Your task to perform on an android device: turn notification dots off Image 0: 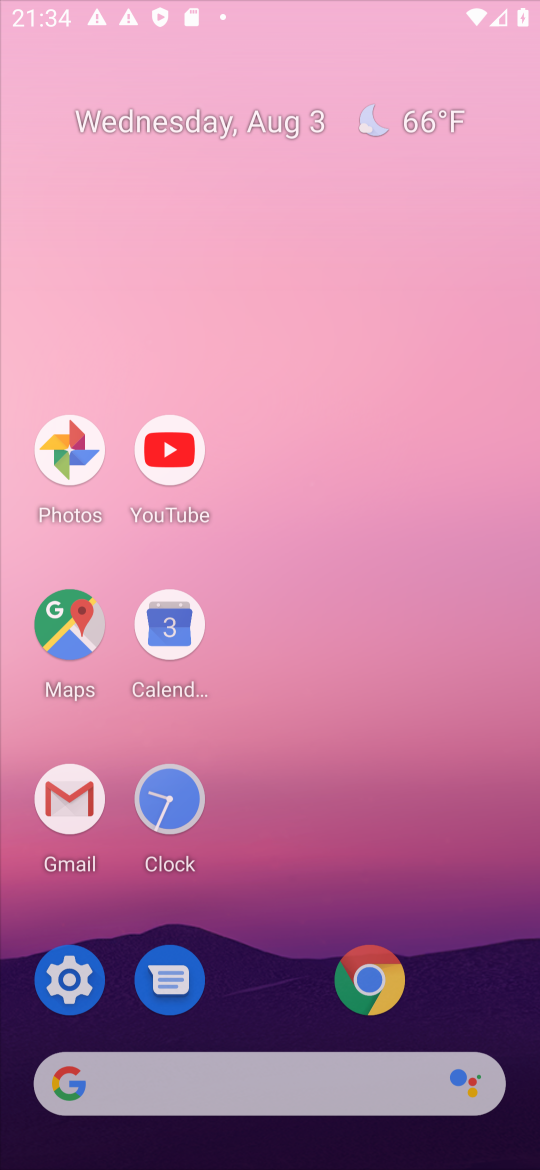
Step 0: press home button
Your task to perform on an android device: turn notification dots off Image 1: 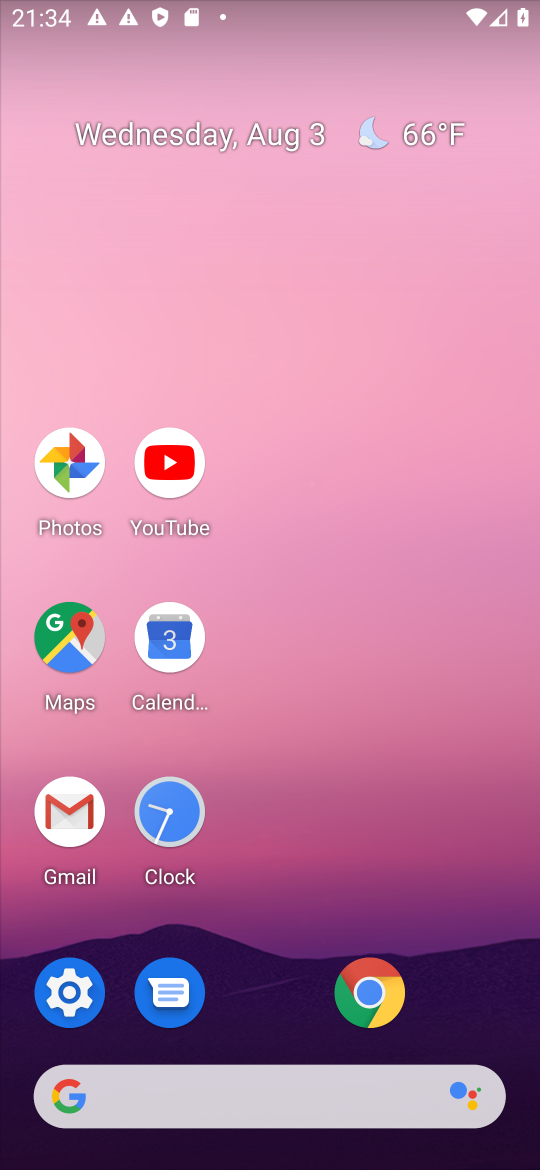
Step 1: click (65, 994)
Your task to perform on an android device: turn notification dots off Image 2: 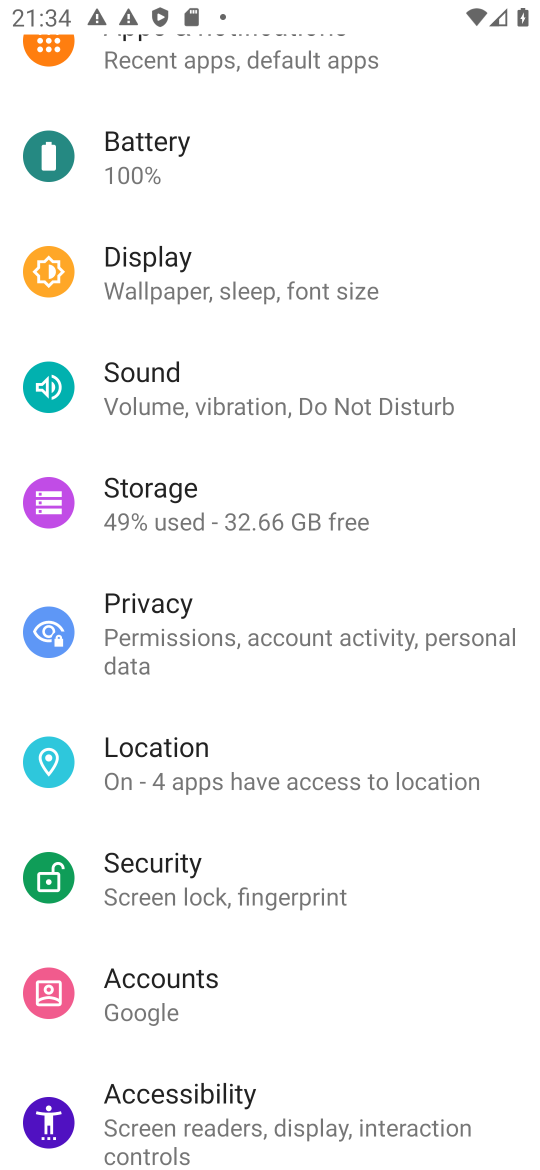
Step 2: drag from (384, 197) to (384, 957)
Your task to perform on an android device: turn notification dots off Image 3: 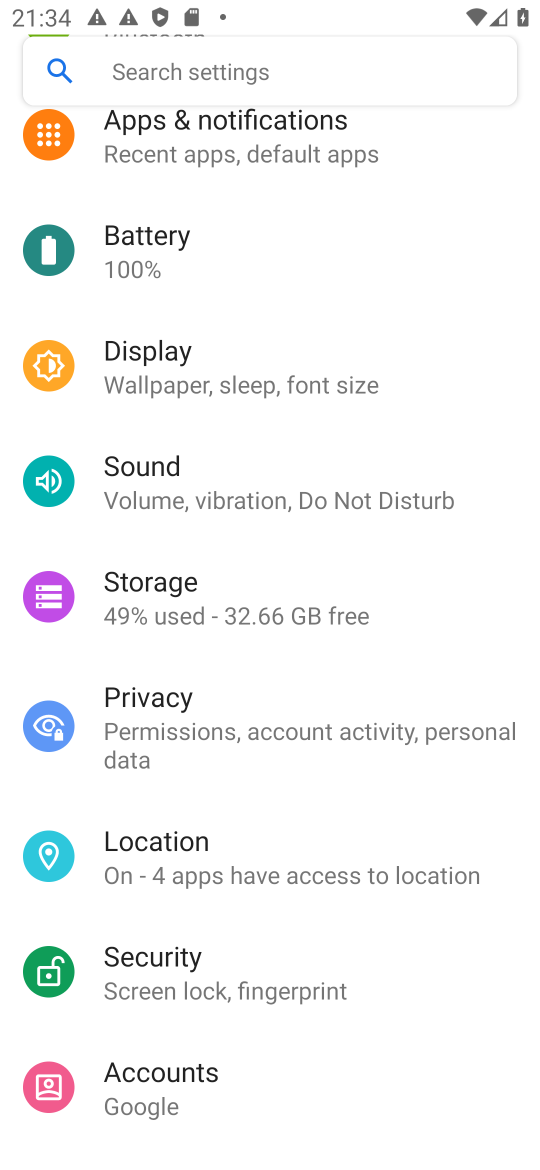
Step 3: click (216, 123)
Your task to perform on an android device: turn notification dots off Image 4: 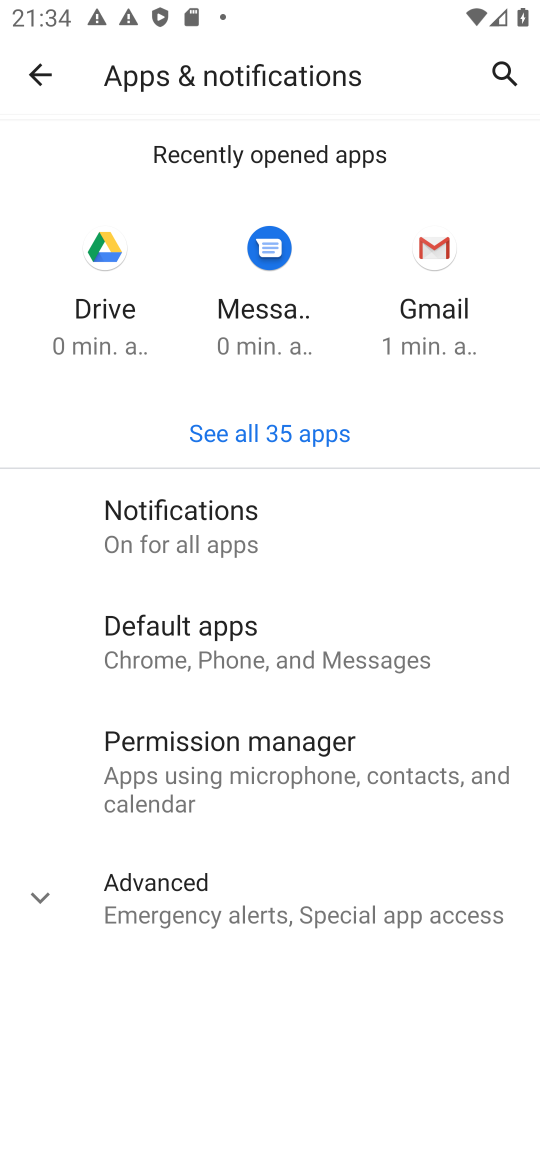
Step 4: click (85, 912)
Your task to perform on an android device: turn notification dots off Image 5: 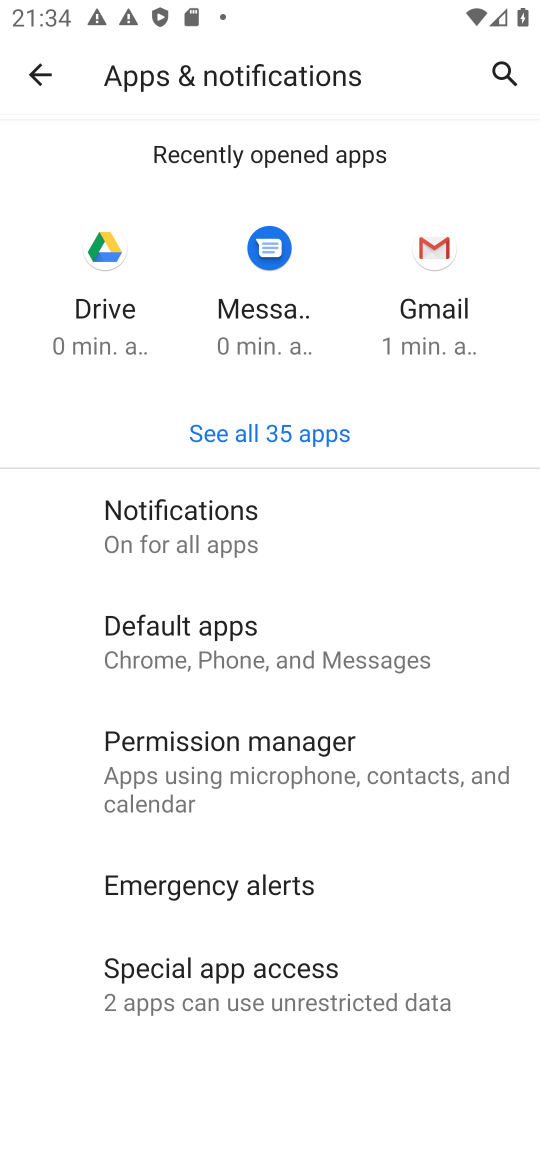
Step 5: click (145, 507)
Your task to perform on an android device: turn notification dots off Image 6: 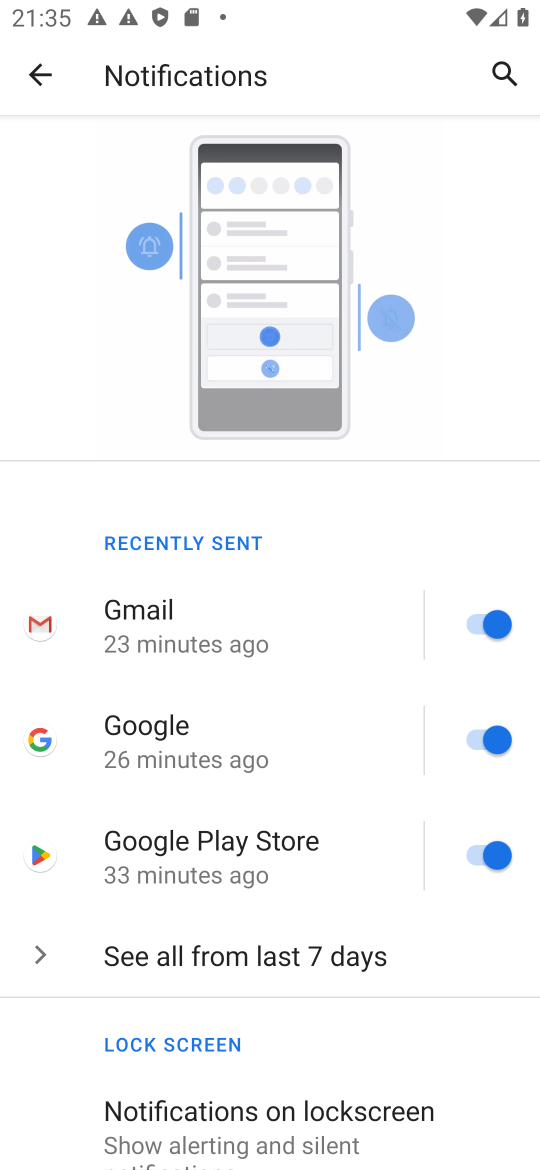
Step 6: drag from (331, 1006) to (332, 384)
Your task to perform on an android device: turn notification dots off Image 7: 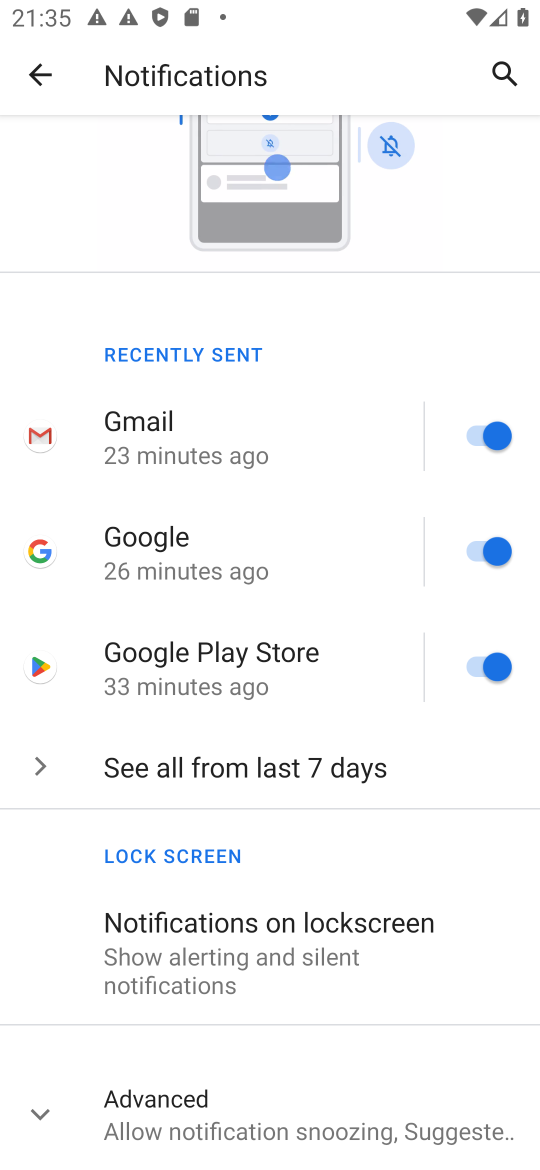
Step 7: click (25, 1116)
Your task to perform on an android device: turn notification dots off Image 8: 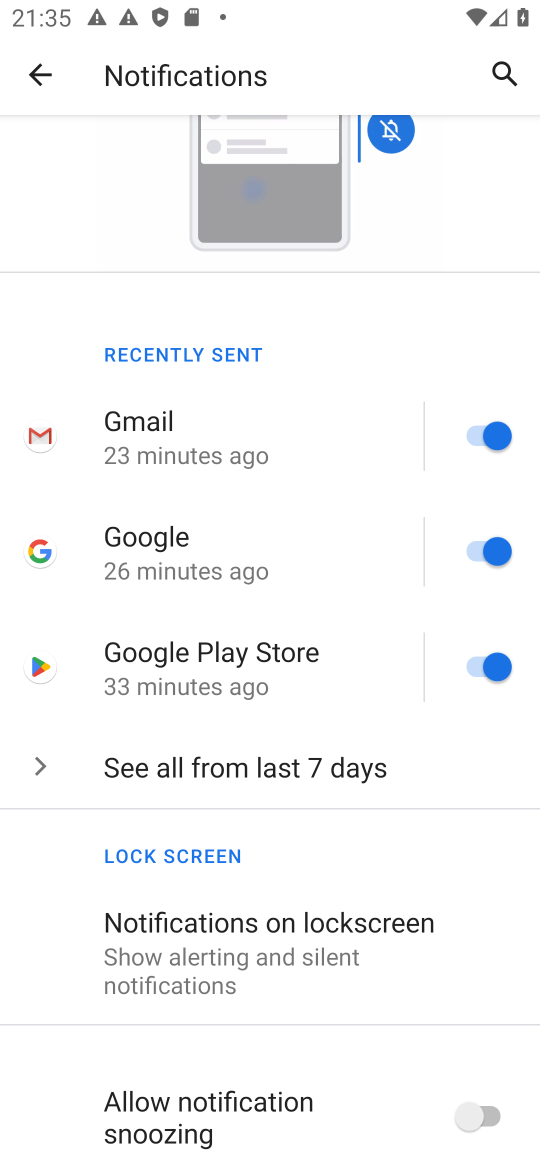
Step 8: drag from (323, 1050) to (302, 547)
Your task to perform on an android device: turn notification dots off Image 9: 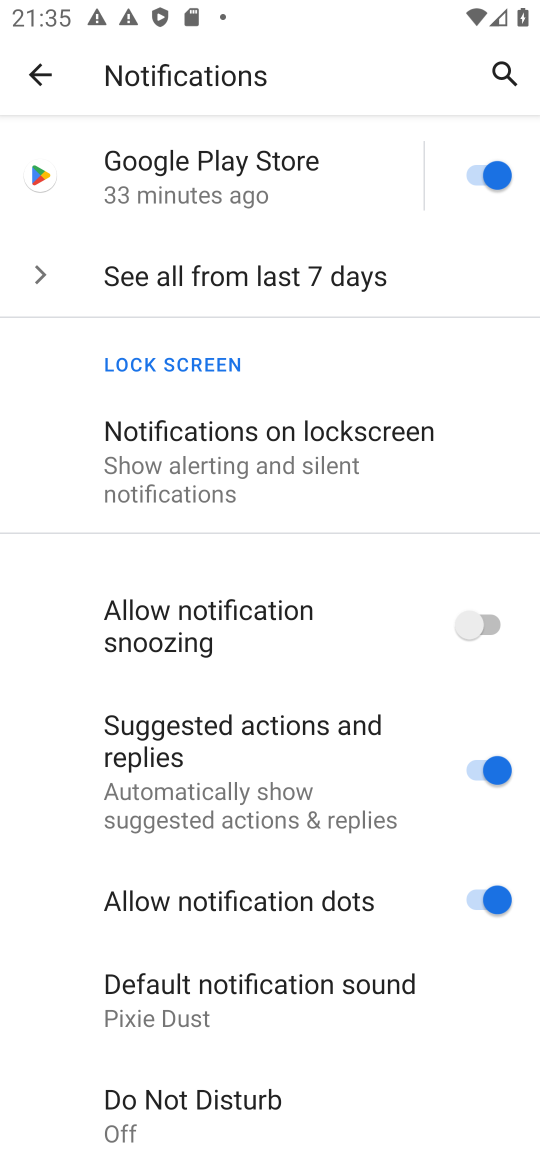
Step 9: click (494, 888)
Your task to perform on an android device: turn notification dots off Image 10: 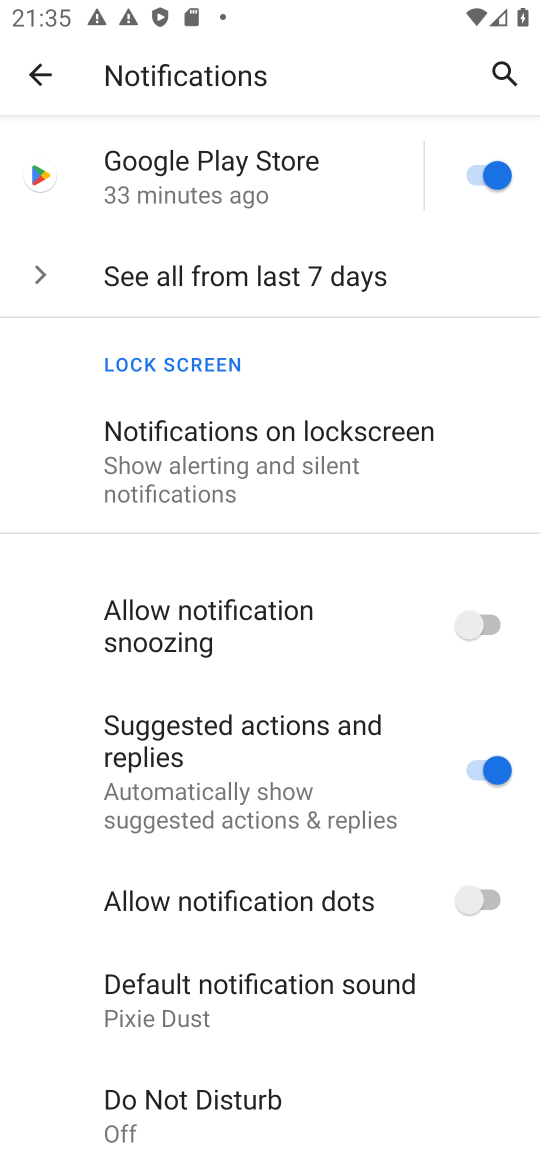
Step 10: task complete